Your task to perform on an android device: Is it going to rain today? Image 0: 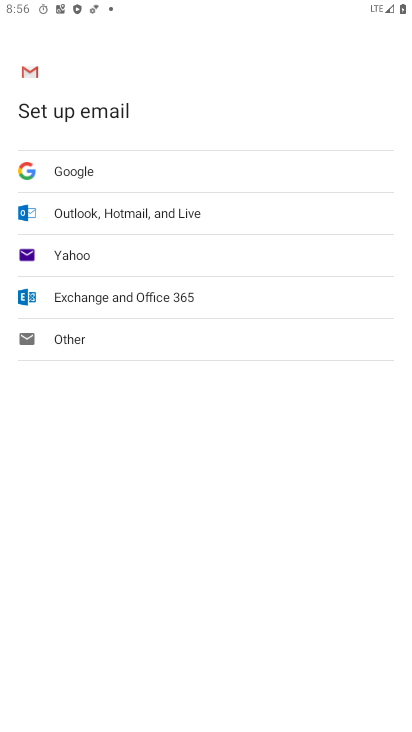
Step 0: press home button
Your task to perform on an android device: Is it going to rain today? Image 1: 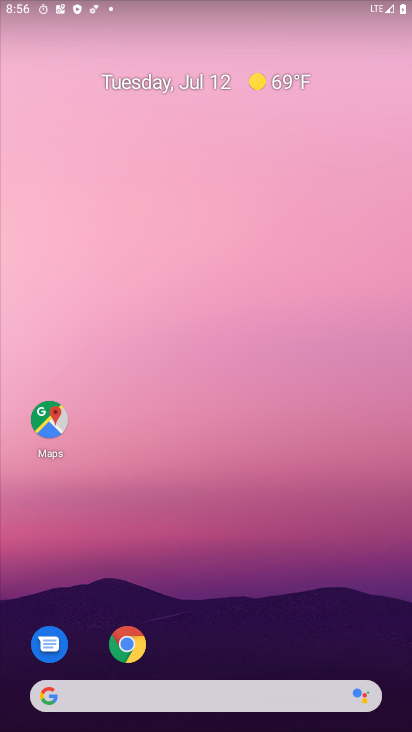
Step 1: click (174, 688)
Your task to perform on an android device: Is it going to rain today? Image 2: 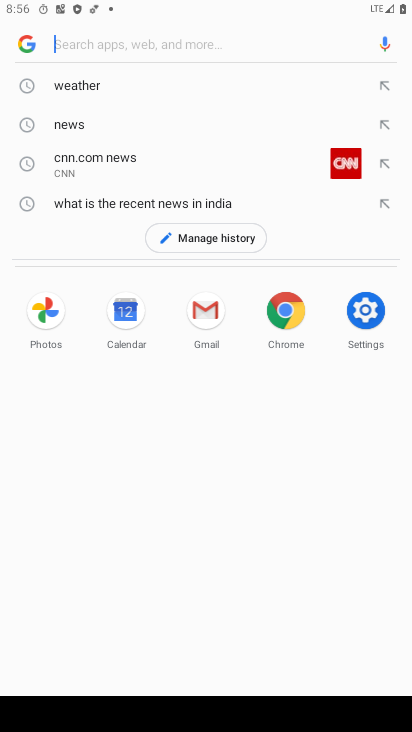
Step 2: click (103, 79)
Your task to perform on an android device: Is it going to rain today? Image 3: 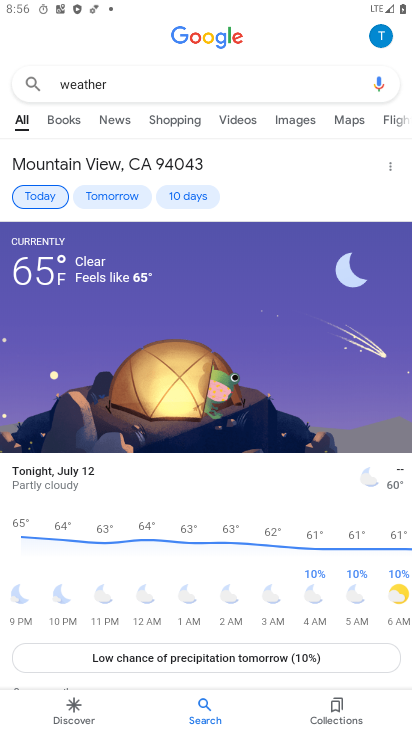
Step 3: click (41, 196)
Your task to perform on an android device: Is it going to rain today? Image 4: 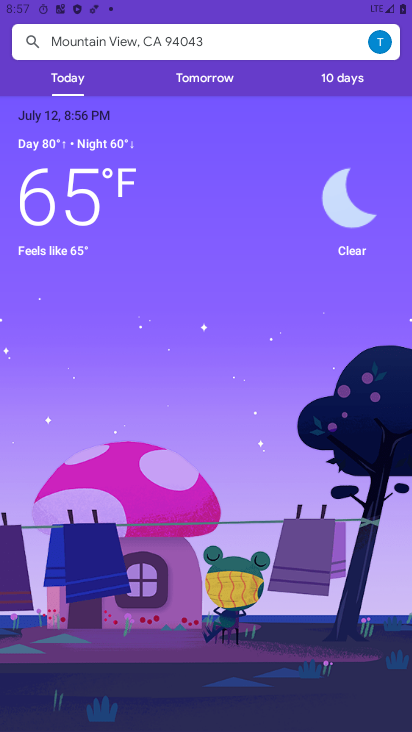
Step 4: task complete